Your task to perform on an android device: Open notification settings Image 0: 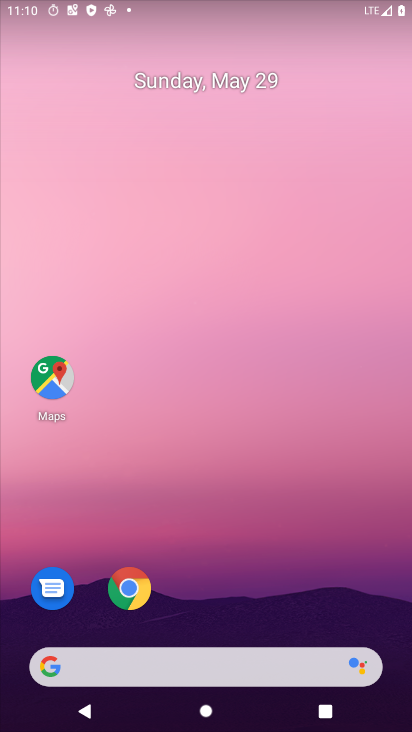
Step 0: drag from (217, 562) to (290, 55)
Your task to perform on an android device: Open notification settings Image 1: 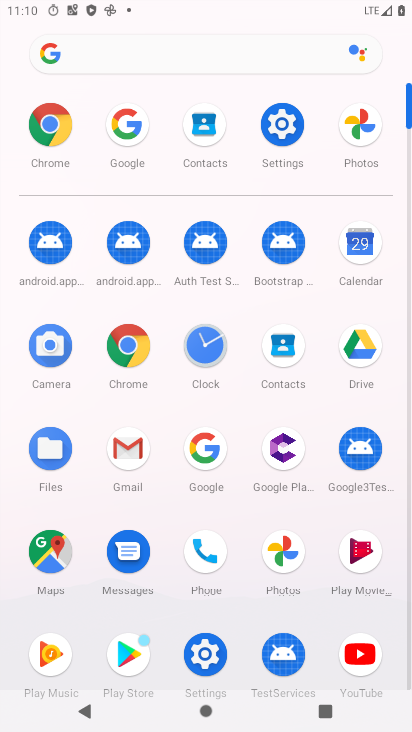
Step 1: click (192, 663)
Your task to perform on an android device: Open notification settings Image 2: 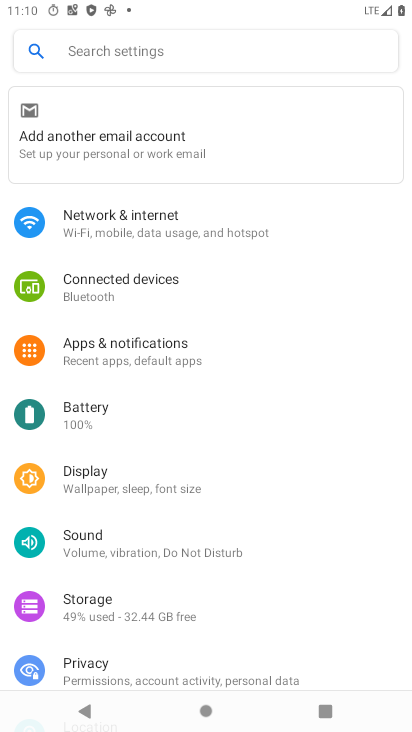
Step 2: click (146, 349)
Your task to perform on an android device: Open notification settings Image 3: 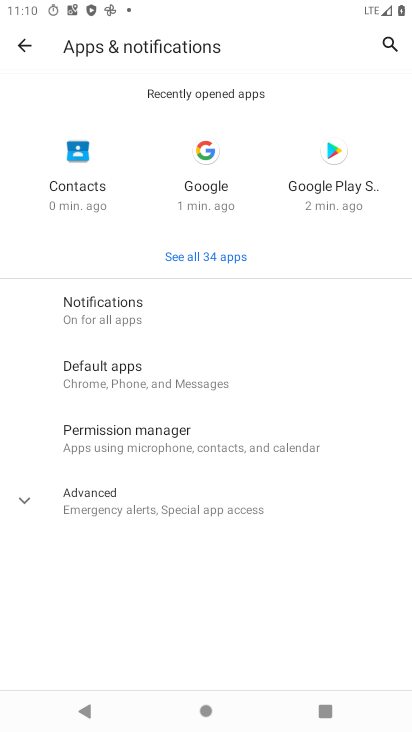
Step 3: click (156, 330)
Your task to perform on an android device: Open notification settings Image 4: 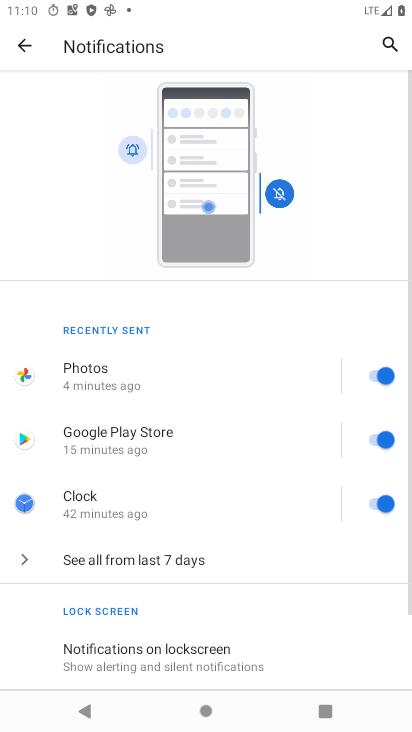
Step 4: task complete